Your task to perform on an android device: delete a single message in the gmail app Image 0: 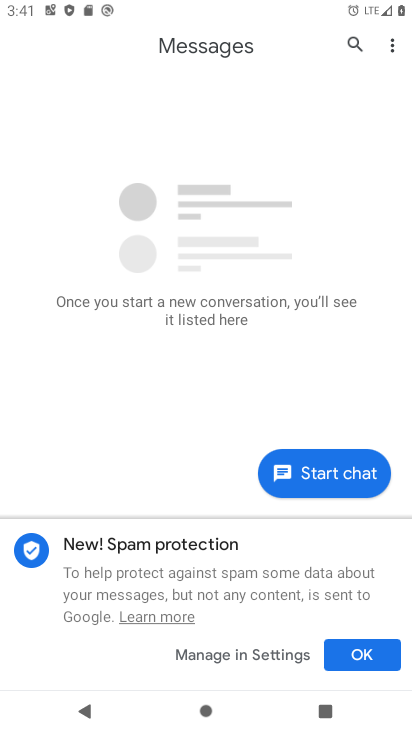
Step 0: press home button
Your task to perform on an android device: delete a single message in the gmail app Image 1: 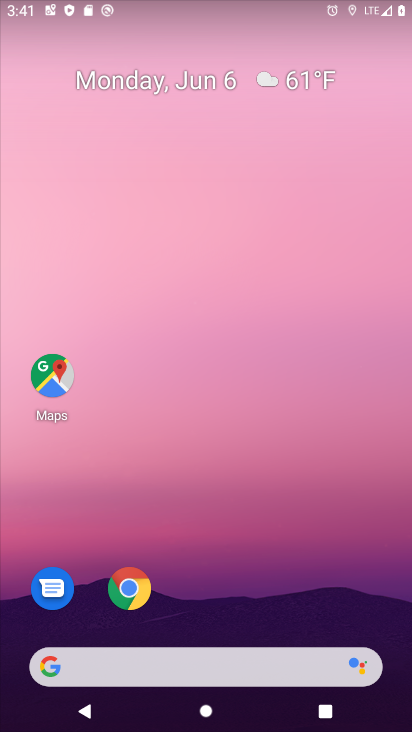
Step 1: drag from (231, 559) to (165, 190)
Your task to perform on an android device: delete a single message in the gmail app Image 2: 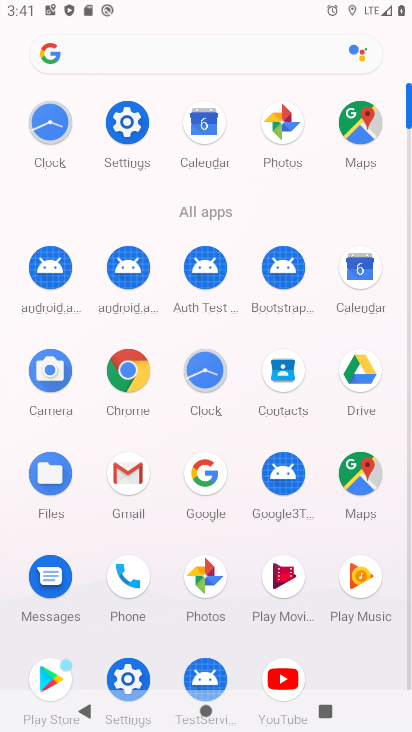
Step 2: click (125, 469)
Your task to perform on an android device: delete a single message in the gmail app Image 3: 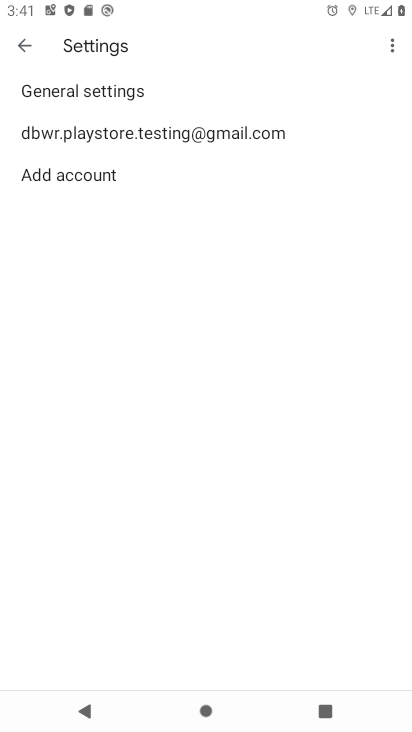
Step 3: click (23, 49)
Your task to perform on an android device: delete a single message in the gmail app Image 4: 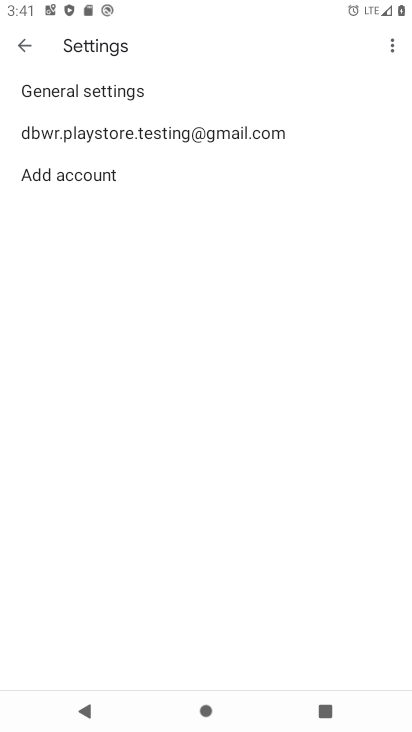
Step 4: click (23, 49)
Your task to perform on an android device: delete a single message in the gmail app Image 5: 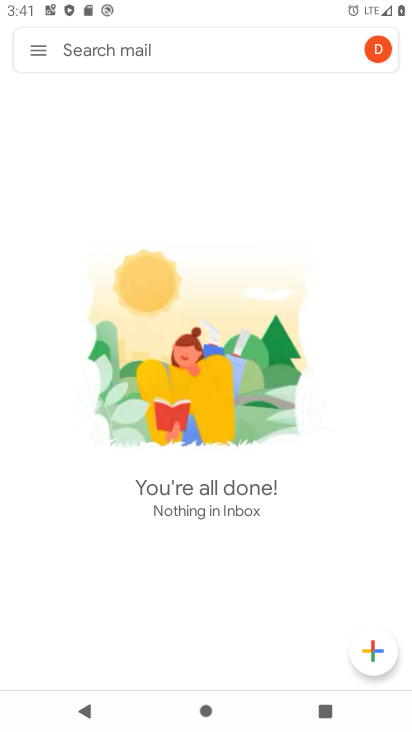
Step 5: task complete